Your task to perform on an android device: Do I have any events today? Image 0: 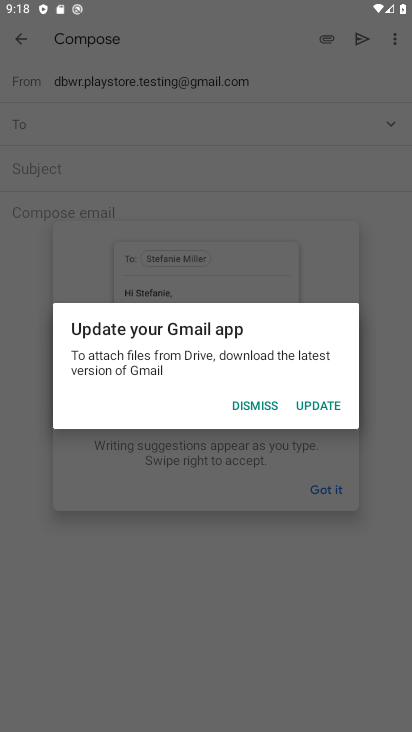
Step 0: press home button
Your task to perform on an android device: Do I have any events today? Image 1: 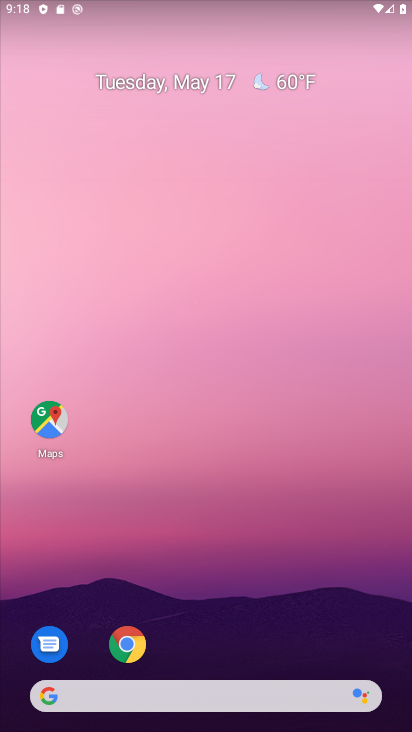
Step 1: drag from (277, 580) to (290, 106)
Your task to perform on an android device: Do I have any events today? Image 2: 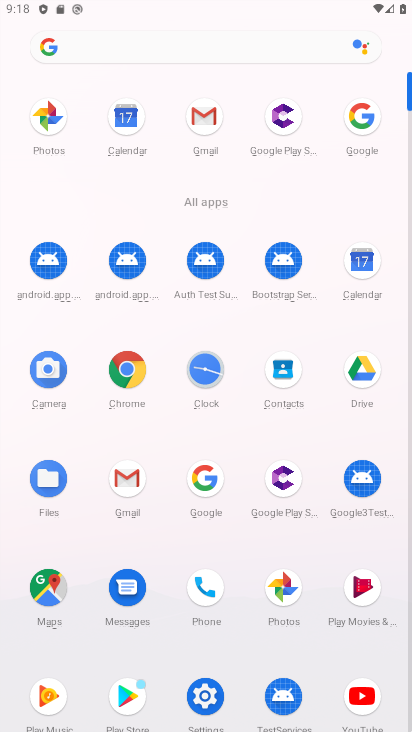
Step 2: click (363, 273)
Your task to perform on an android device: Do I have any events today? Image 3: 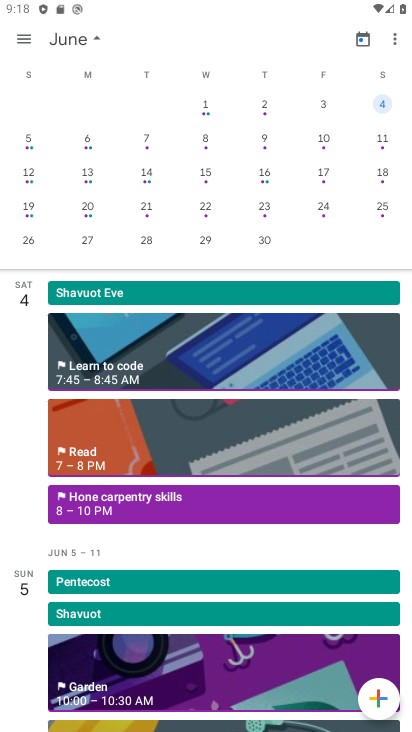
Step 3: drag from (161, 156) to (366, 156)
Your task to perform on an android device: Do I have any events today? Image 4: 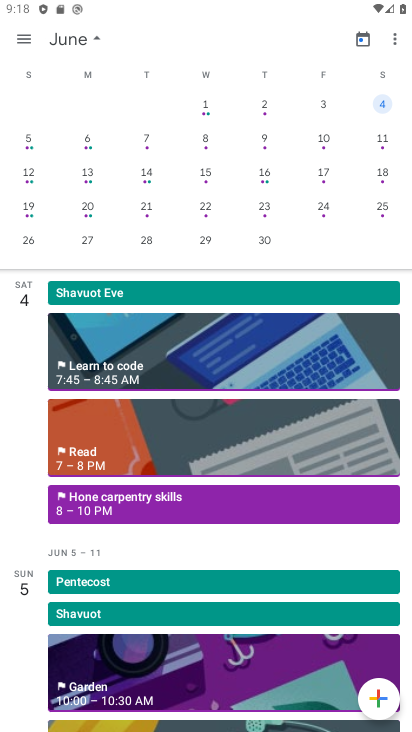
Step 4: drag from (110, 183) to (403, 260)
Your task to perform on an android device: Do I have any events today? Image 5: 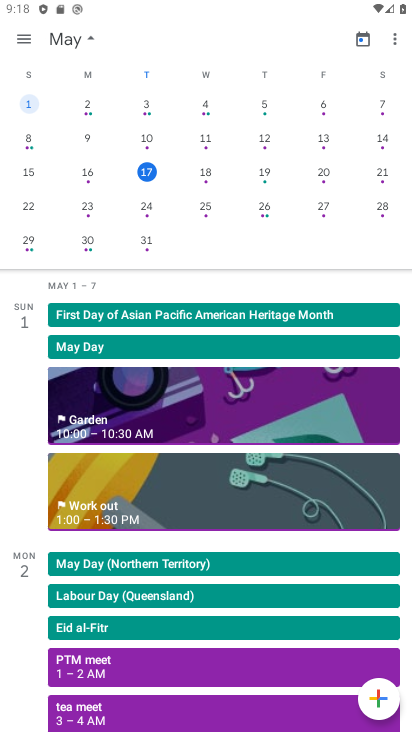
Step 5: drag from (84, 178) to (129, 183)
Your task to perform on an android device: Do I have any events today? Image 6: 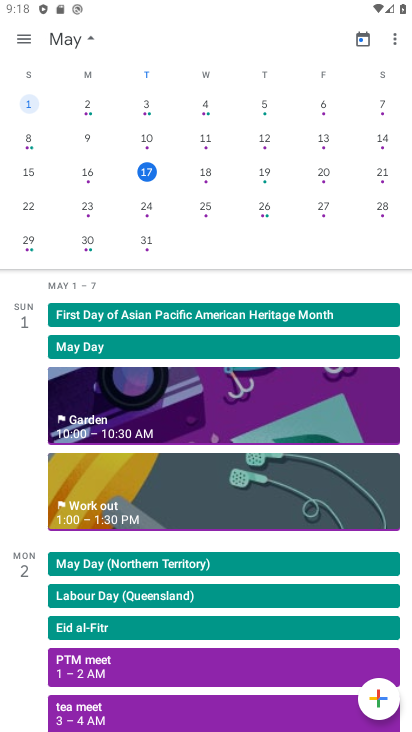
Step 6: click (178, 173)
Your task to perform on an android device: Do I have any events today? Image 7: 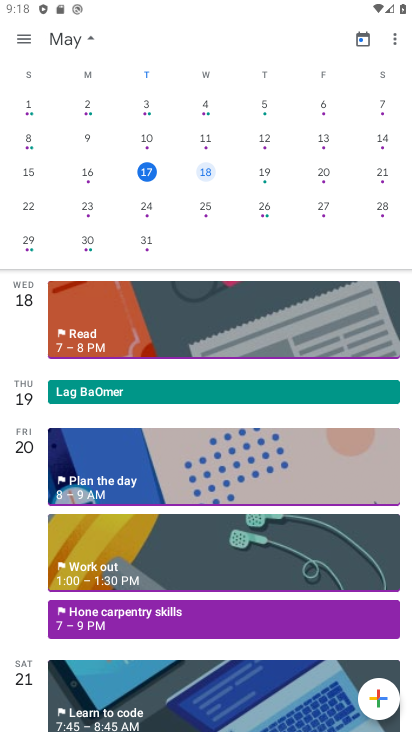
Step 7: click (147, 172)
Your task to perform on an android device: Do I have any events today? Image 8: 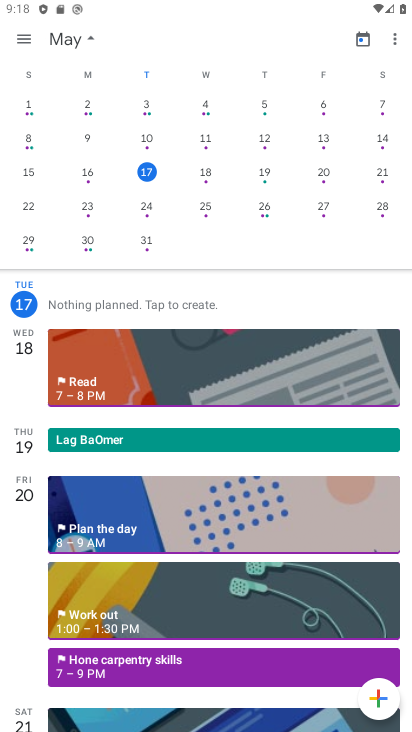
Step 8: task complete